Your task to perform on an android device: Go to wifi settings Image 0: 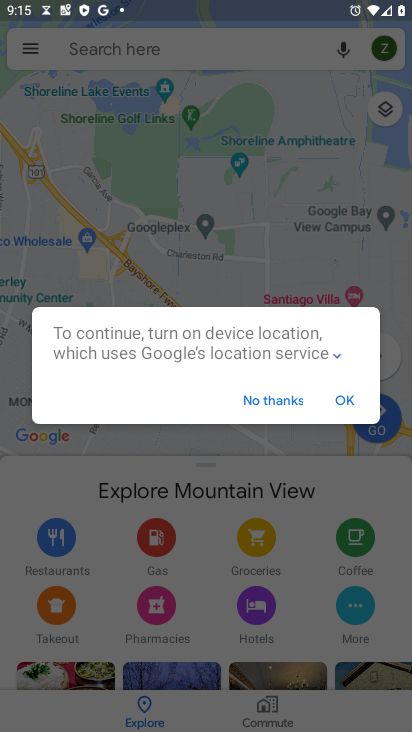
Step 0: press home button
Your task to perform on an android device: Go to wifi settings Image 1: 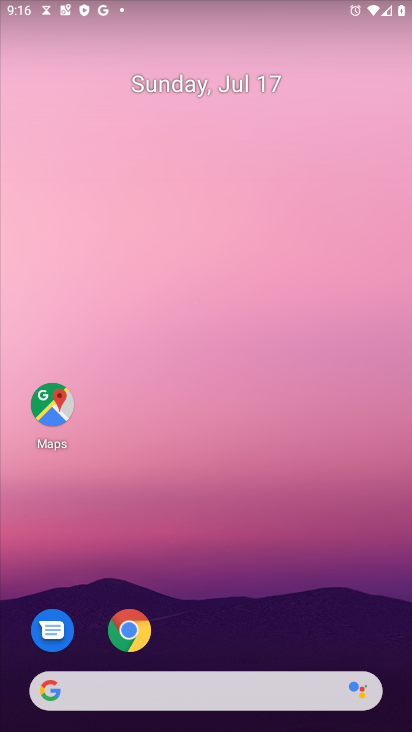
Step 1: drag from (132, 419) to (108, 138)
Your task to perform on an android device: Go to wifi settings Image 2: 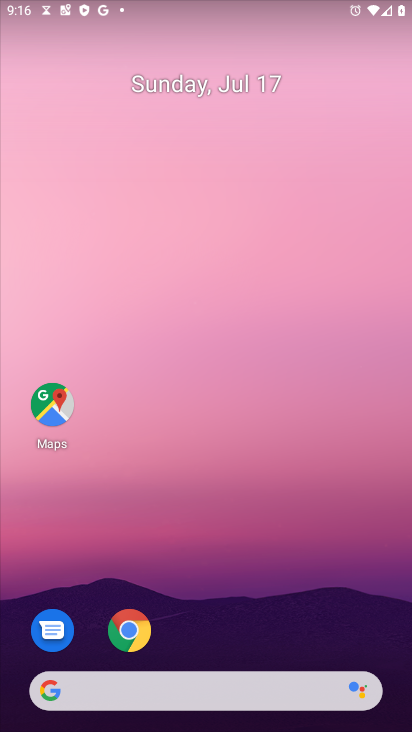
Step 2: drag from (206, 601) to (251, 1)
Your task to perform on an android device: Go to wifi settings Image 3: 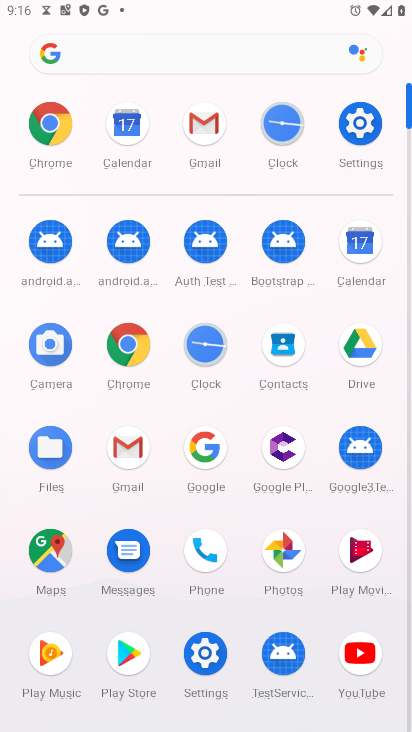
Step 3: click (357, 125)
Your task to perform on an android device: Go to wifi settings Image 4: 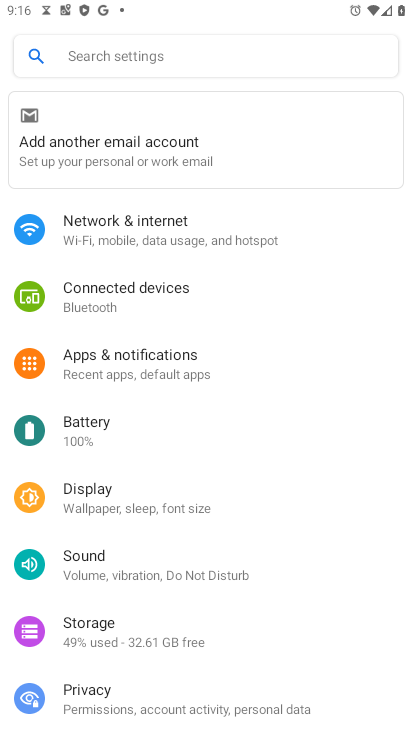
Step 4: click (147, 228)
Your task to perform on an android device: Go to wifi settings Image 5: 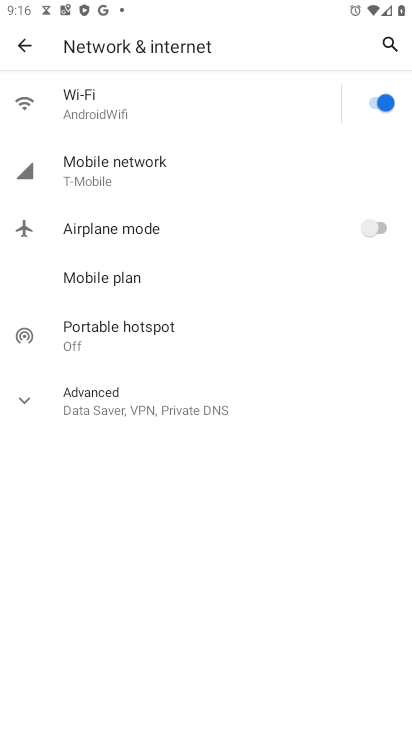
Step 5: click (101, 90)
Your task to perform on an android device: Go to wifi settings Image 6: 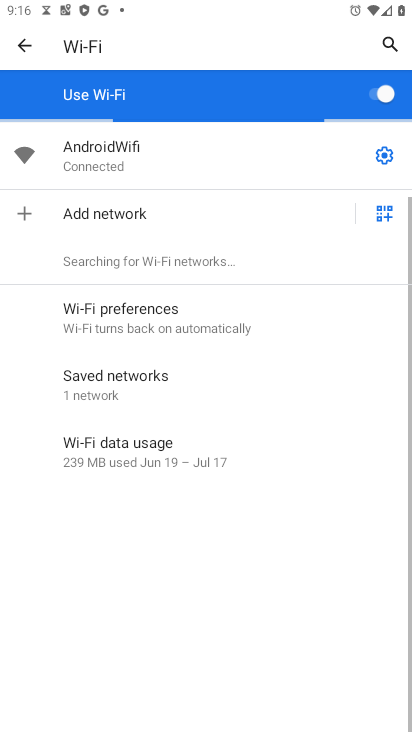
Step 6: task complete